Your task to perform on an android device: What's on my calendar tomorrow? Image 0: 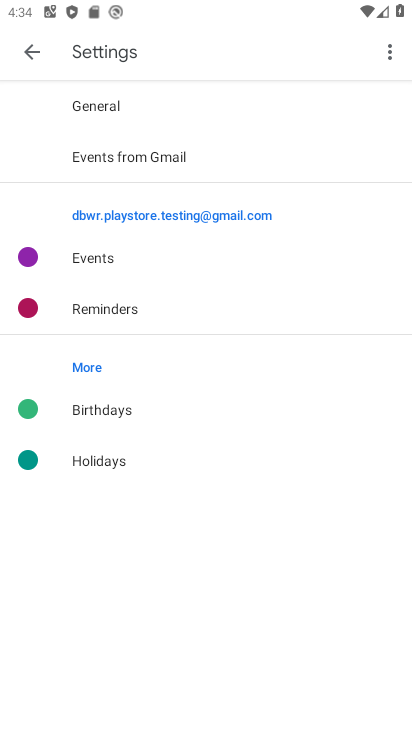
Step 0: press home button
Your task to perform on an android device: What's on my calendar tomorrow? Image 1: 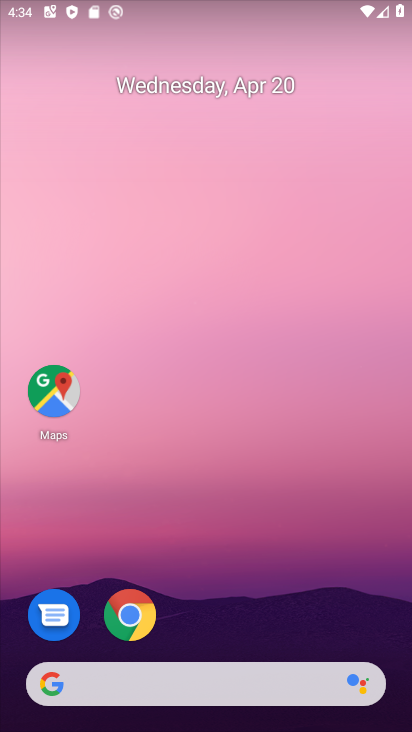
Step 1: drag from (195, 570) to (302, 73)
Your task to perform on an android device: What's on my calendar tomorrow? Image 2: 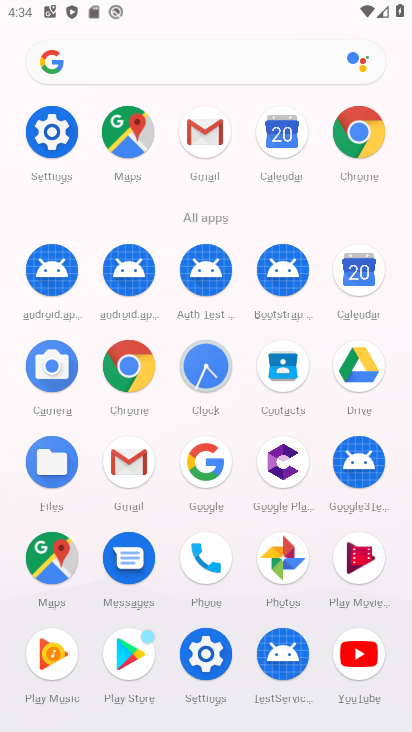
Step 2: click (368, 280)
Your task to perform on an android device: What's on my calendar tomorrow? Image 3: 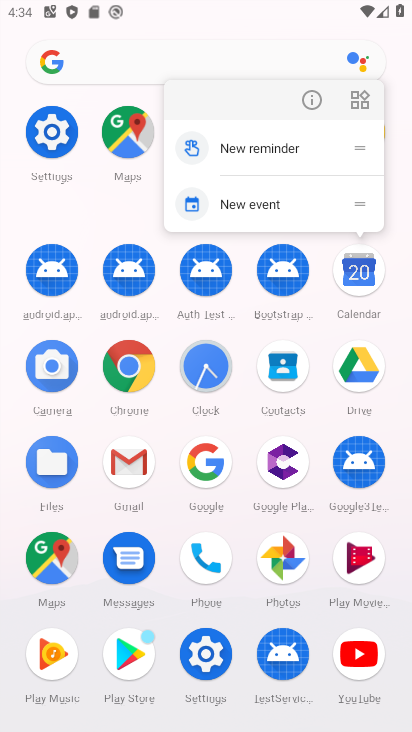
Step 3: click (367, 273)
Your task to perform on an android device: What's on my calendar tomorrow? Image 4: 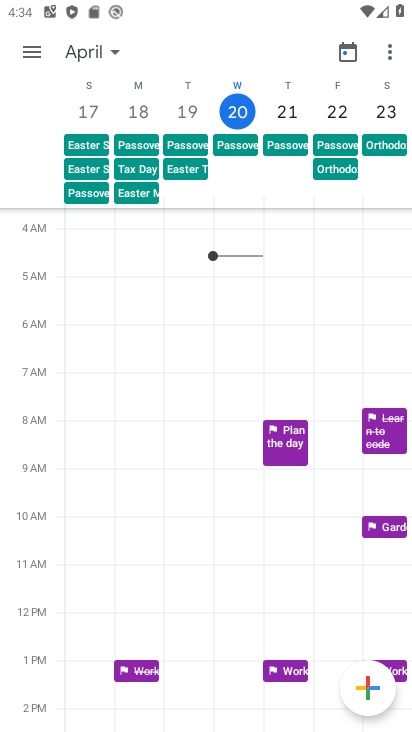
Step 4: click (26, 46)
Your task to perform on an android device: What's on my calendar tomorrow? Image 5: 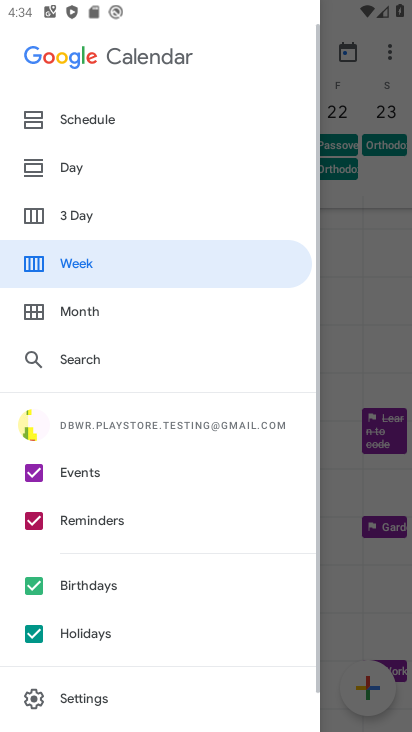
Step 5: click (68, 217)
Your task to perform on an android device: What's on my calendar tomorrow? Image 6: 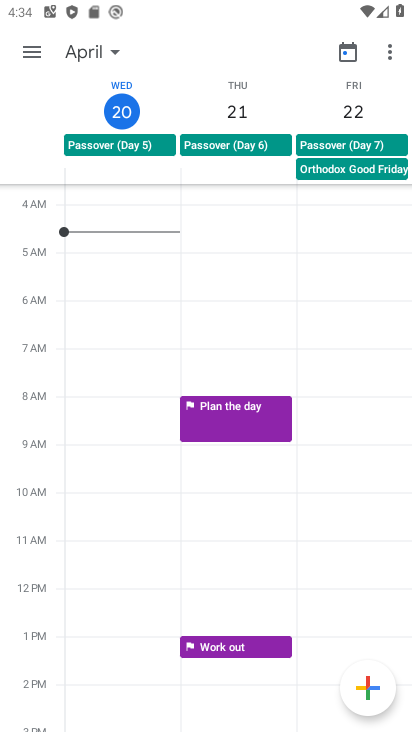
Step 6: task complete